Your task to perform on an android device: read, delete, or share a saved page in the chrome app Image 0: 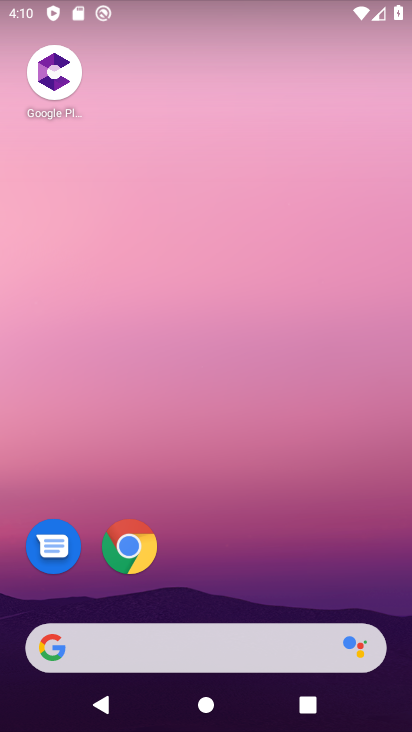
Step 0: click (130, 537)
Your task to perform on an android device: read, delete, or share a saved page in the chrome app Image 1: 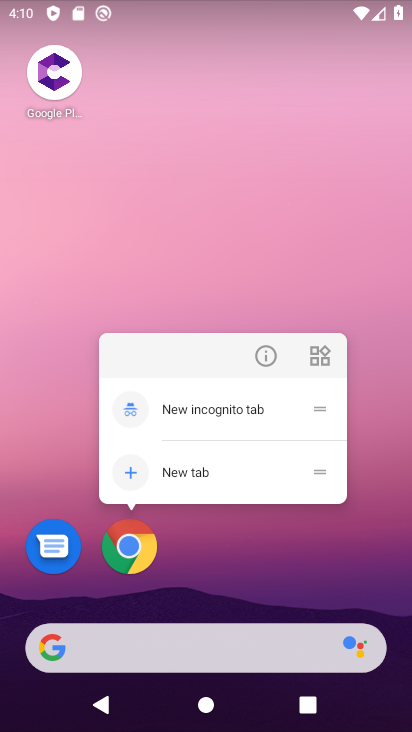
Step 1: click (135, 550)
Your task to perform on an android device: read, delete, or share a saved page in the chrome app Image 2: 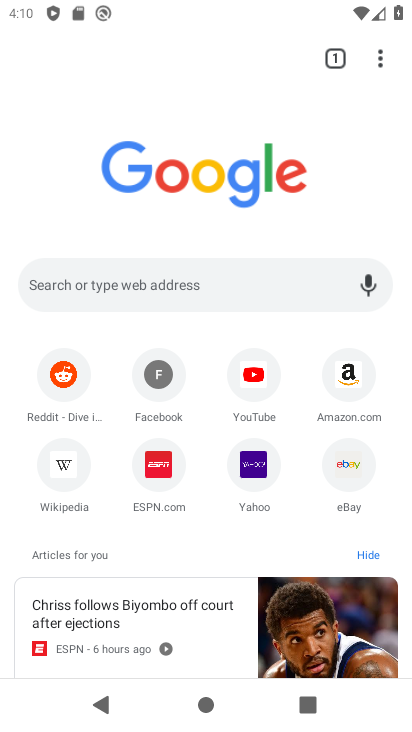
Step 2: click (381, 57)
Your task to perform on an android device: read, delete, or share a saved page in the chrome app Image 3: 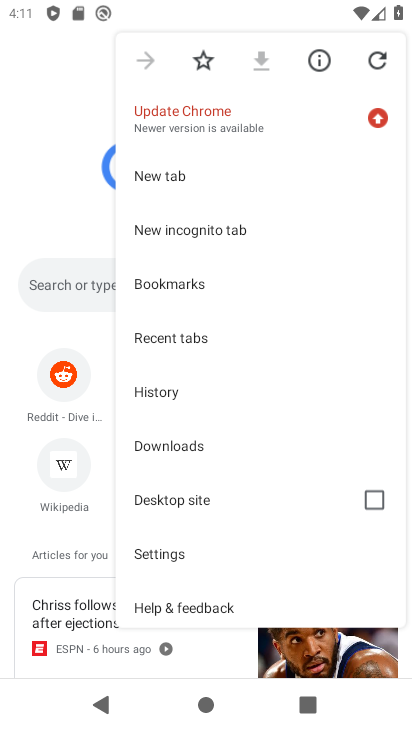
Step 3: click (165, 441)
Your task to perform on an android device: read, delete, or share a saved page in the chrome app Image 4: 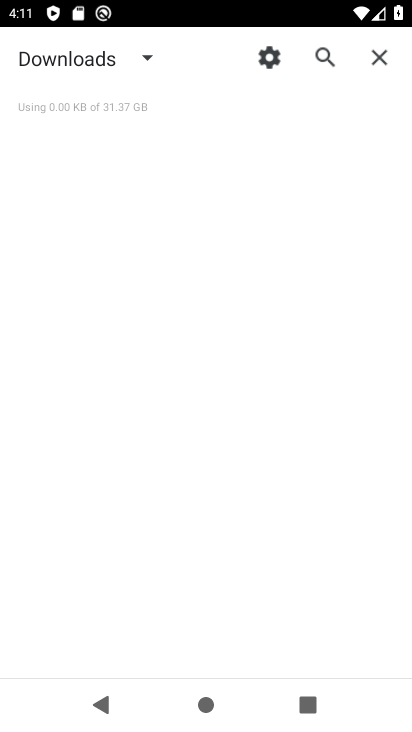
Step 4: click (142, 59)
Your task to perform on an android device: read, delete, or share a saved page in the chrome app Image 5: 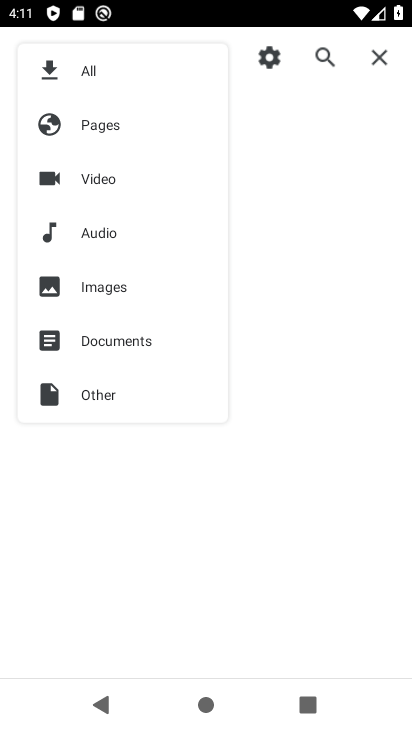
Step 5: click (100, 131)
Your task to perform on an android device: read, delete, or share a saved page in the chrome app Image 6: 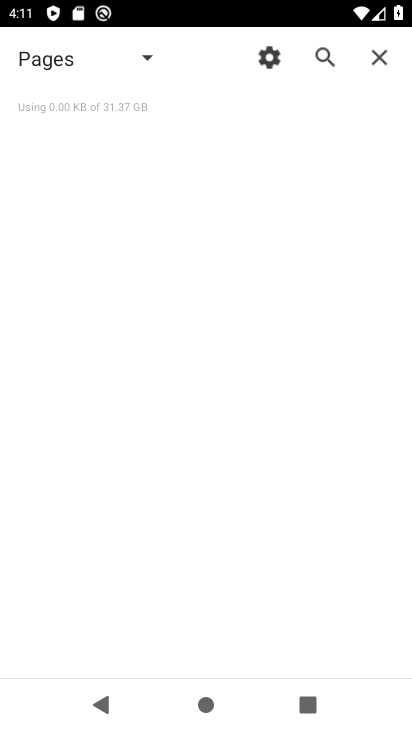
Step 6: task complete